Your task to perform on an android device: Clear the shopping cart on ebay. Search for "asus rog" on ebay, select the first entry, add it to the cart, then select checkout. Image 0: 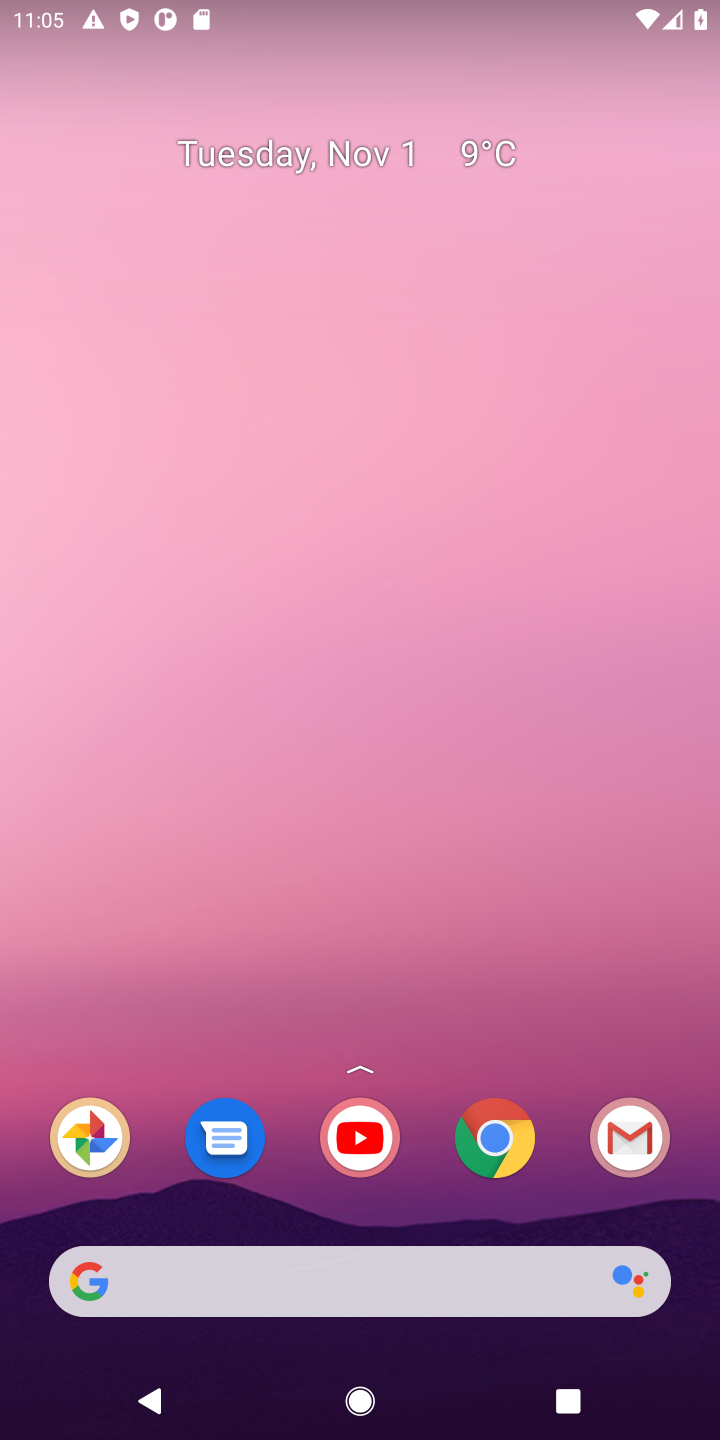
Step 0: click (359, 1272)
Your task to perform on an android device: Clear the shopping cart on ebay. Search for "asus rog" on ebay, select the first entry, add it to the cart, then select checkout. Image 1: 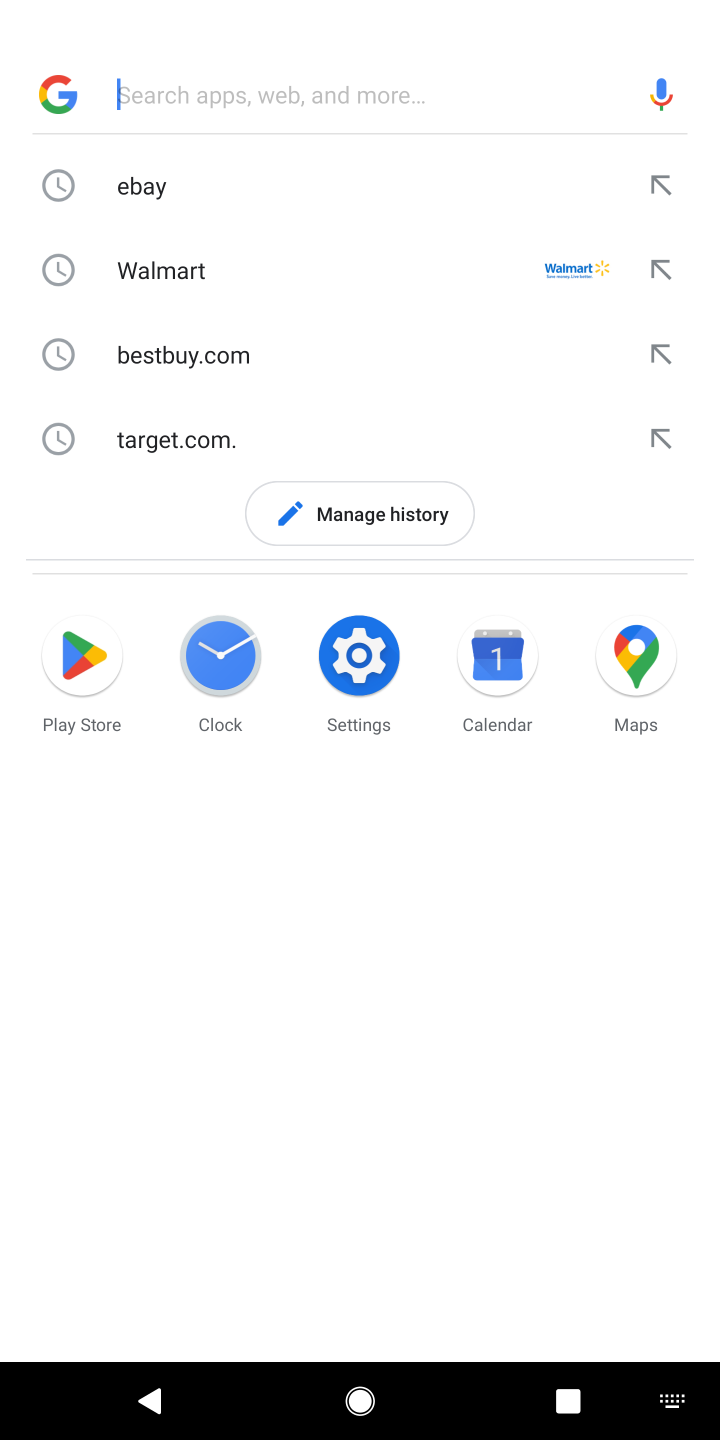
Step 1: type "ebay"
Your task to perform on an android device: Clear the shopping cart on ebay. Search for "asus rog" on ebay, select the first entry, add it to the cart, then select checkout. Image 2: 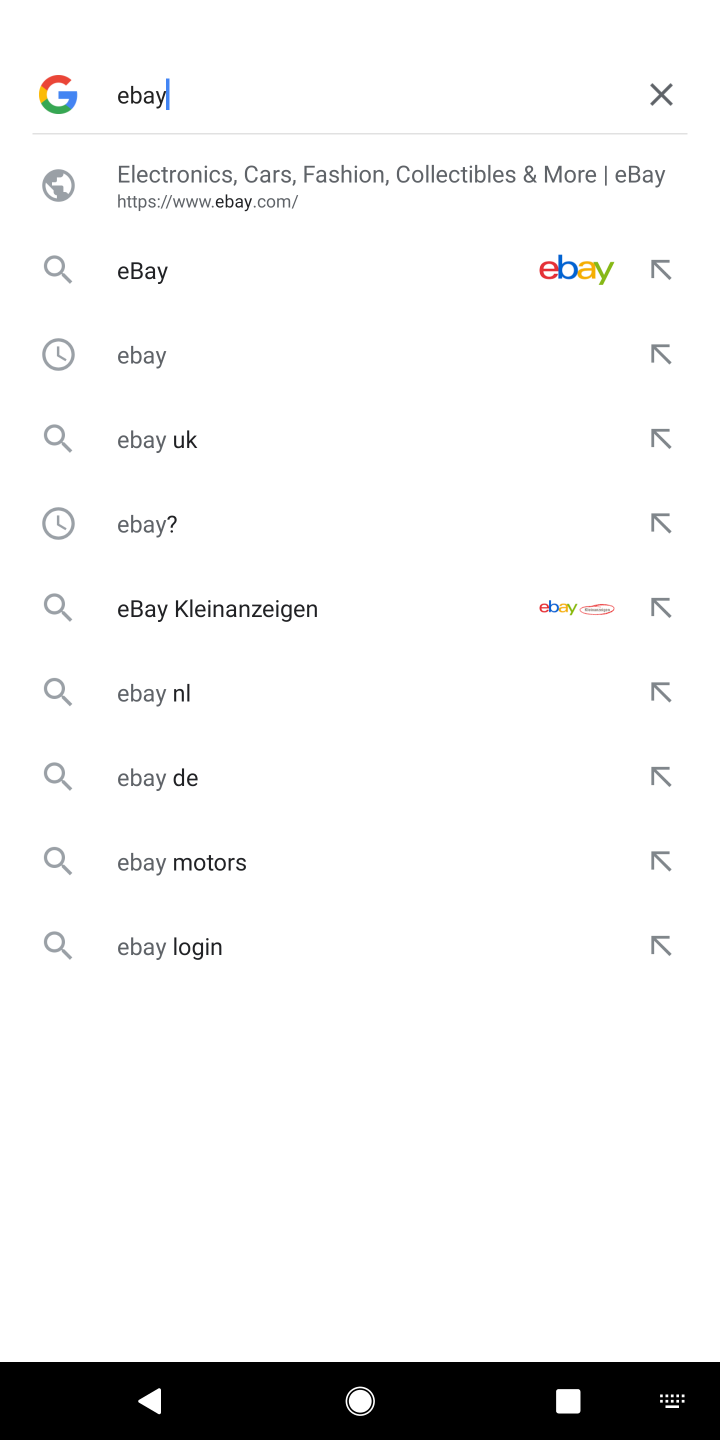
Step 2: click (202, 208)
Your task to perform on an android device: Clear the shopping cart on ebay. Search for "asus rog" on ebay, select the first entry, add it to the cart, then select checkout. Image 3: 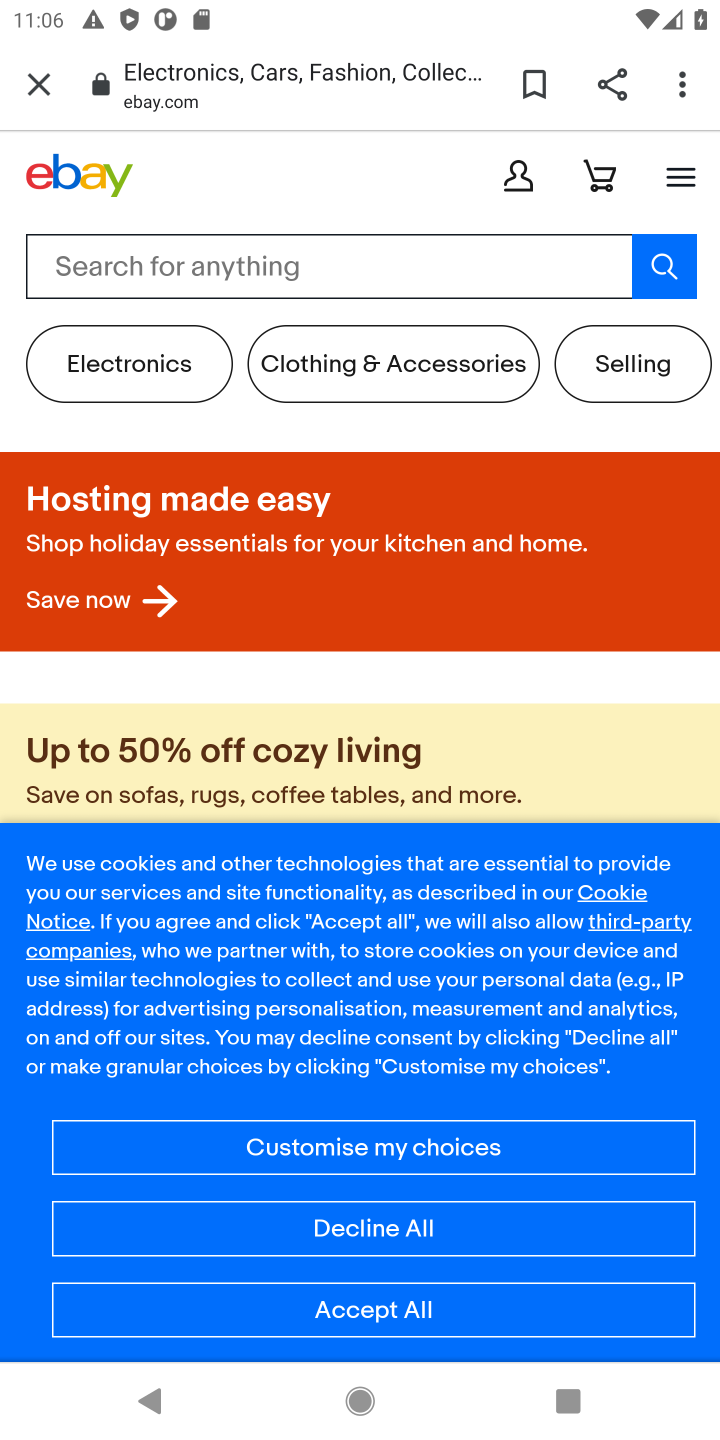
Step 3: click (302, 263)
Your task to perform on an android device: Clear the shopping cart on ebay. Search for "asus rog" on ebay, select the first entry, add it to the cart, then select checkout. Image 4: 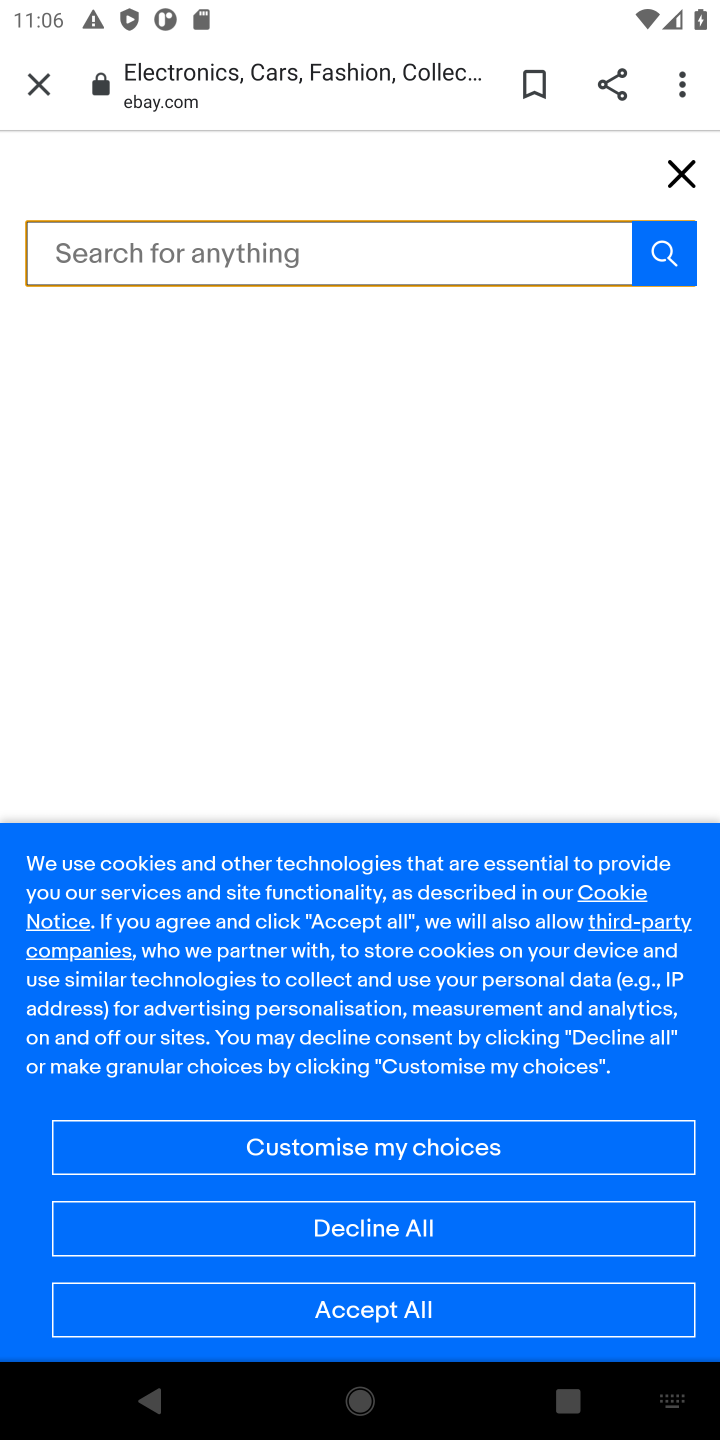
Step 4: type "asus rog"
Your task to perform on an android device: Clear the shopping cart on ebay. Search for "asus rog" on ebay, select the first entry, add it to the cart, then select checkout. Image 5: 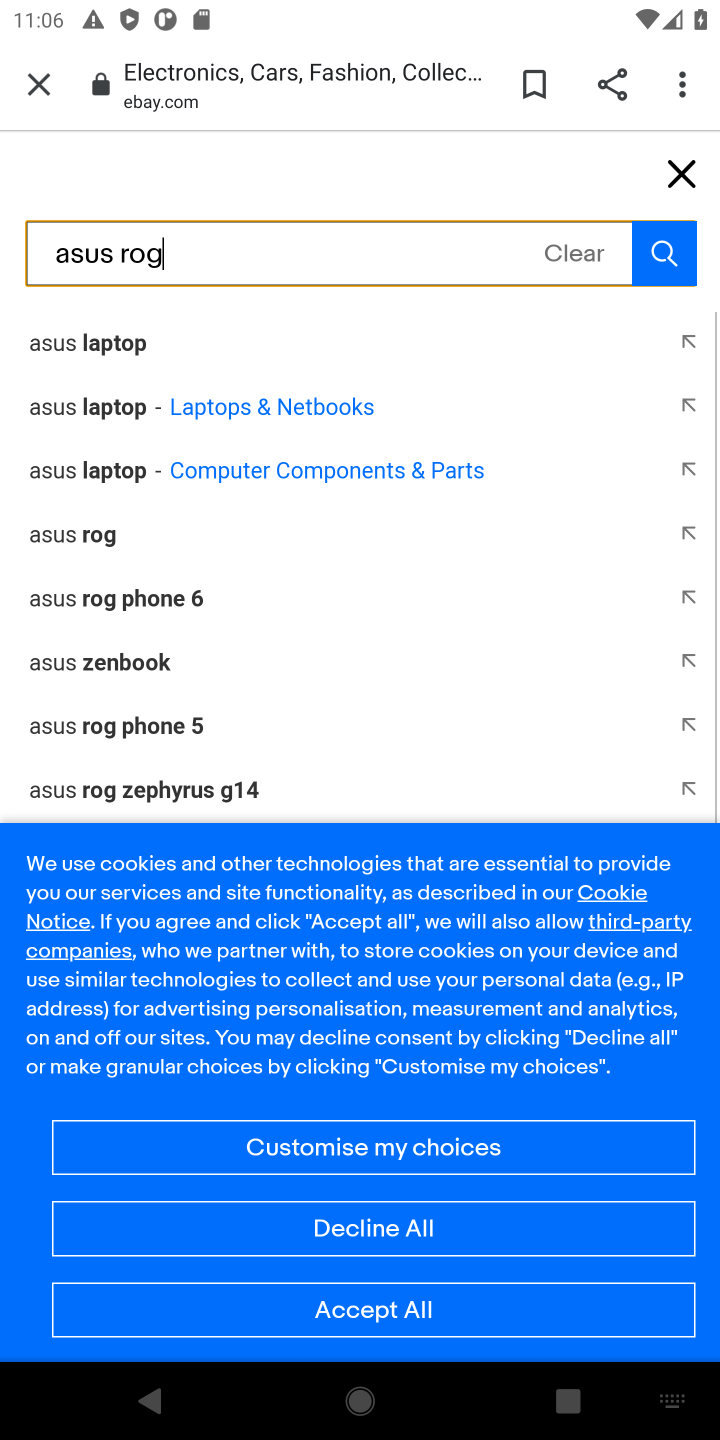
Step 5: type ""
Your task to perform on an android device: Clear the shopping cart on ebay. Search for "asus rog" on ebay, select the first entry, add it to the cart, then select checkout. Image 6: 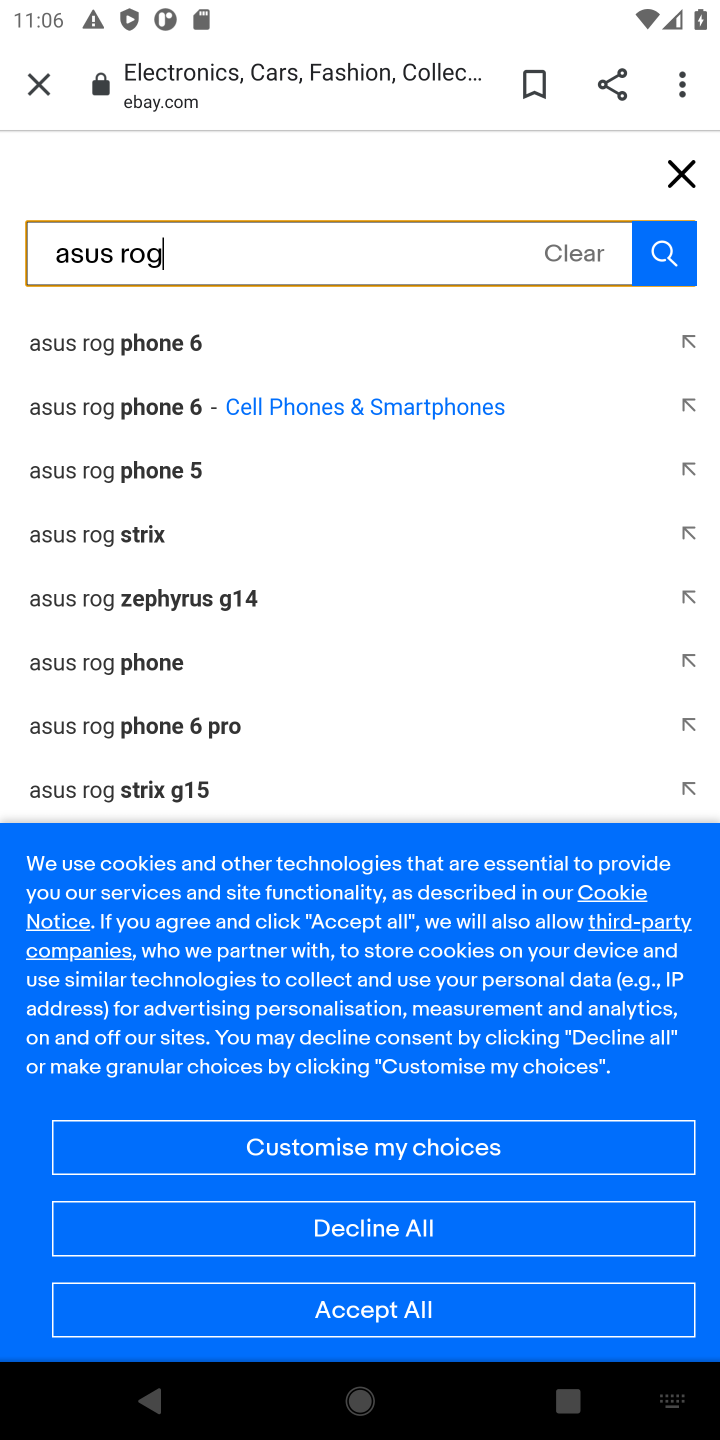
Step 6: click (654, 261)
Your task to perform on an android device: Clear the shopping cart on ebay. Search for "asus rog" on ebay, select the first entry, add it to the cart, then select checkout. Image 7: 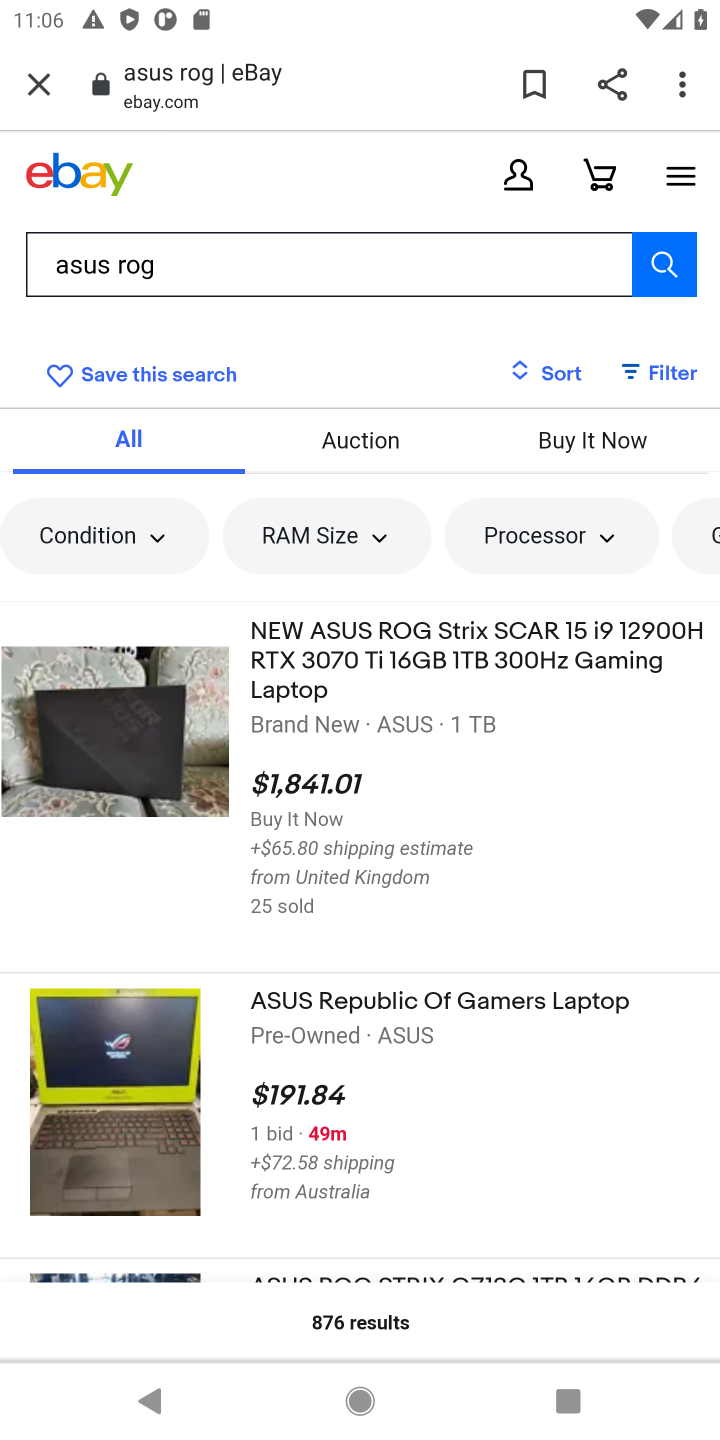
Step 7: click (484, 686)
Your task to perform on an android device: Clear the shopping cart on ebay. Search for "asus rog" on ebay, select the first entry, add it to the cart, then select checkout. Image 8: 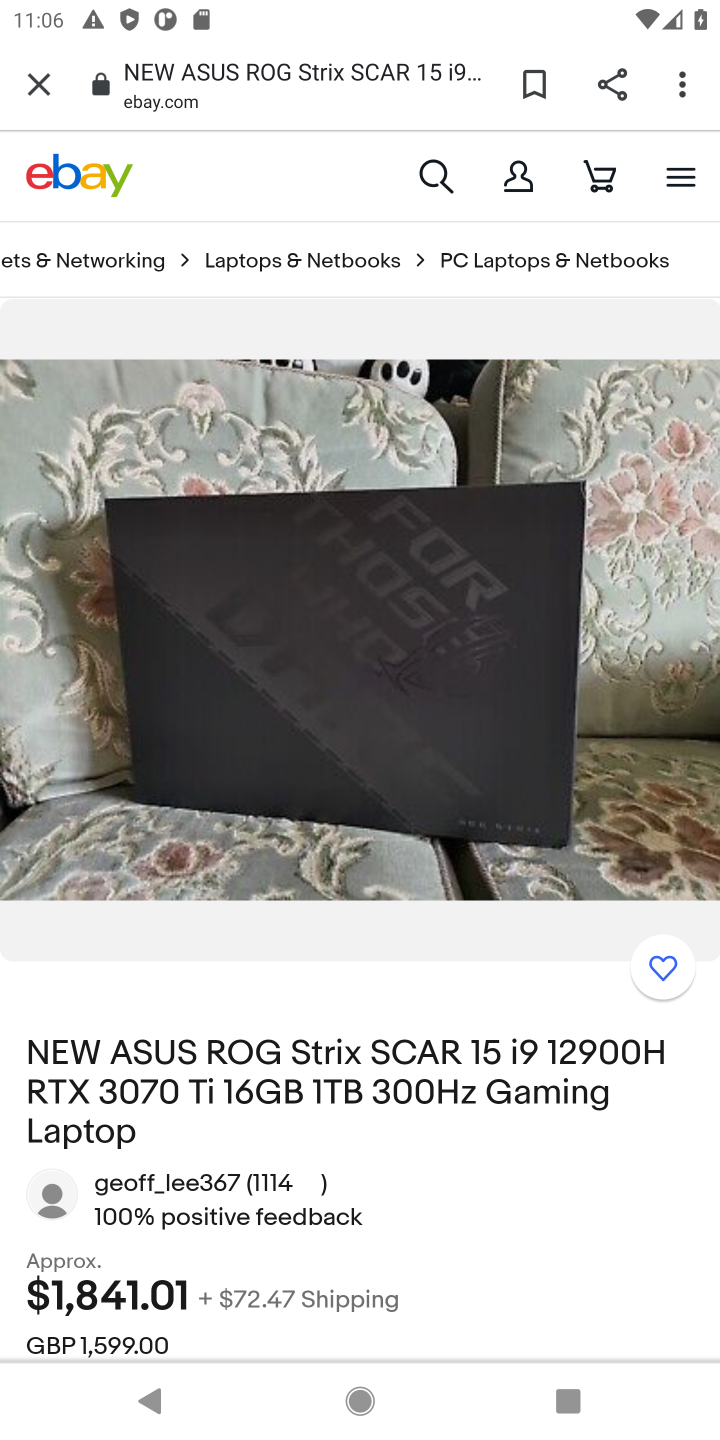
Step 8: drag from (418, 936) to (337, 504)
Your task to perform on an android device: Clear the shopping cart on ebay. Search for "asus rog" on ebay, select the first entry, add it to the cart, then select checkout. Image 9: 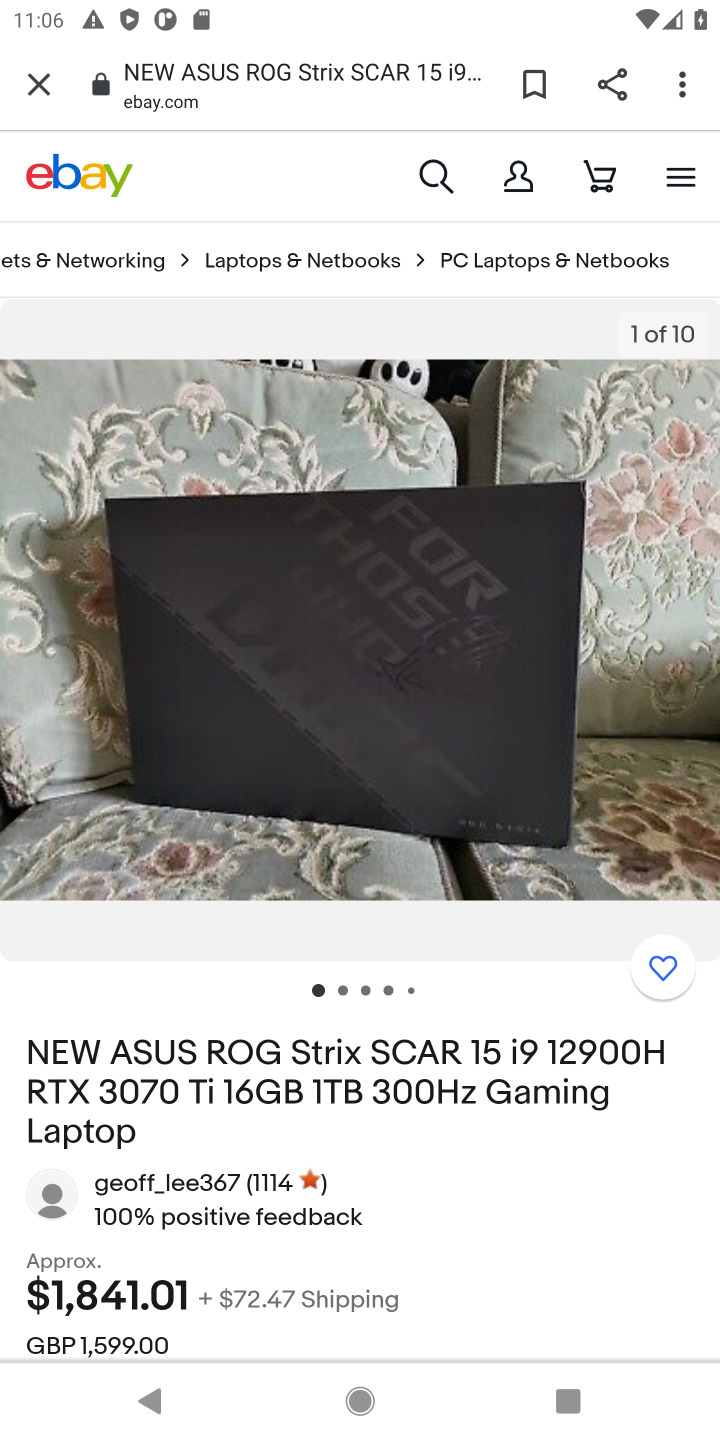
Step 9: drag from (493, 943) to (501, 633)
Your task to perform on an android device: Clear the shopping cart on ebay. Search for "asus rog" on ebay, select the first entry, add it to the cart, then select checkout. Image 10: 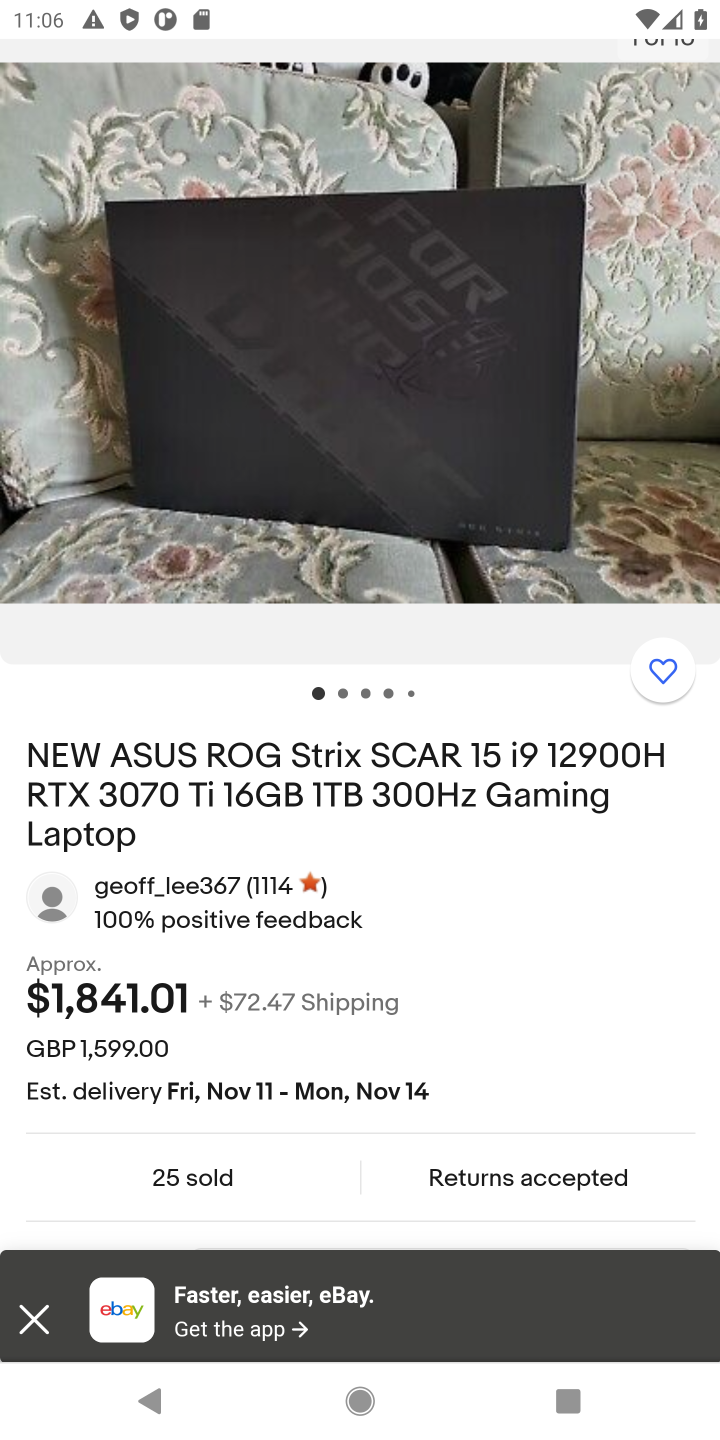
Step 10: drag from (404, 955) to (450, 531)
Your task to perform on an android device: Clear the shopping cart on ebay. Search for "asus rog" on ebay, select the first entry, add it to the cart, then select checkout. Image 11: 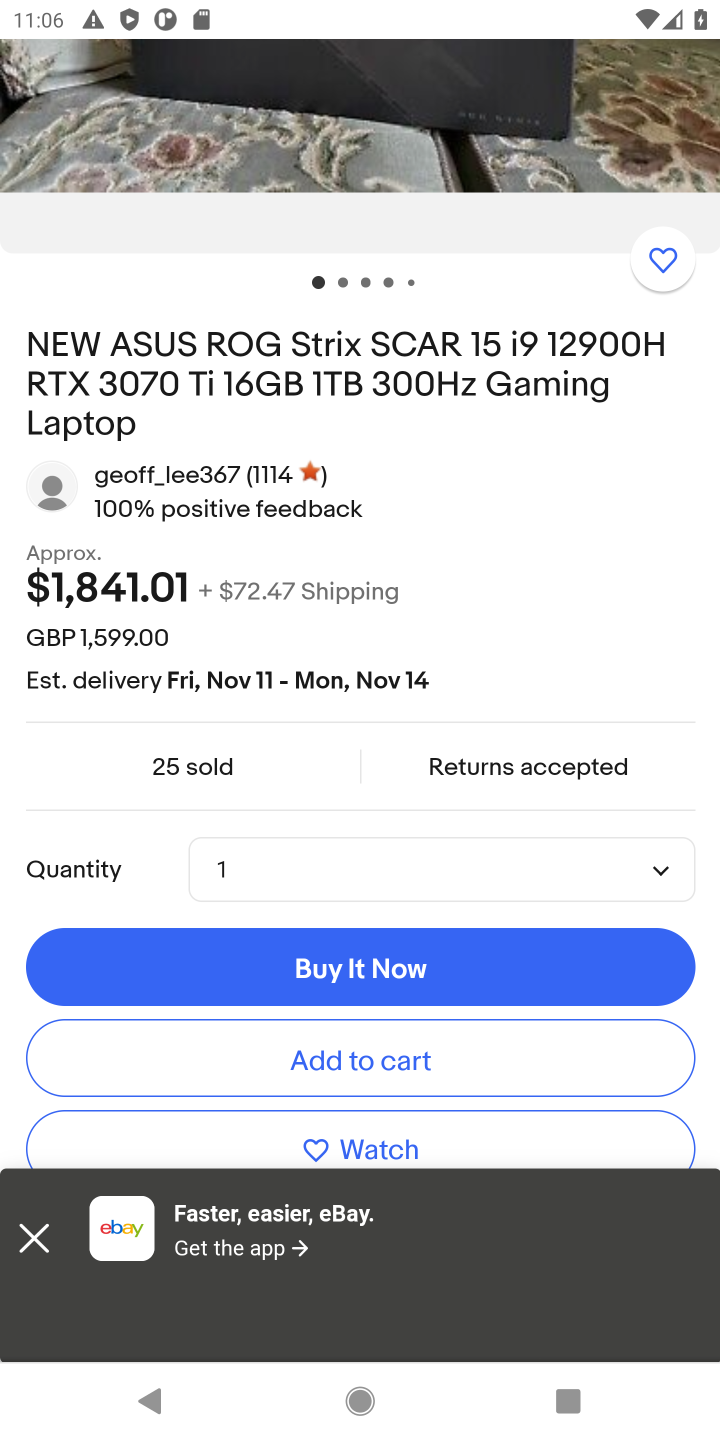
Step 11: click (382, 1057)
Your task to perform on an android device: Clear the shopping cart on ebay. Search for "asus rog" on ebay, select the first entry, add it to the cart, then select checkout. Image 12: 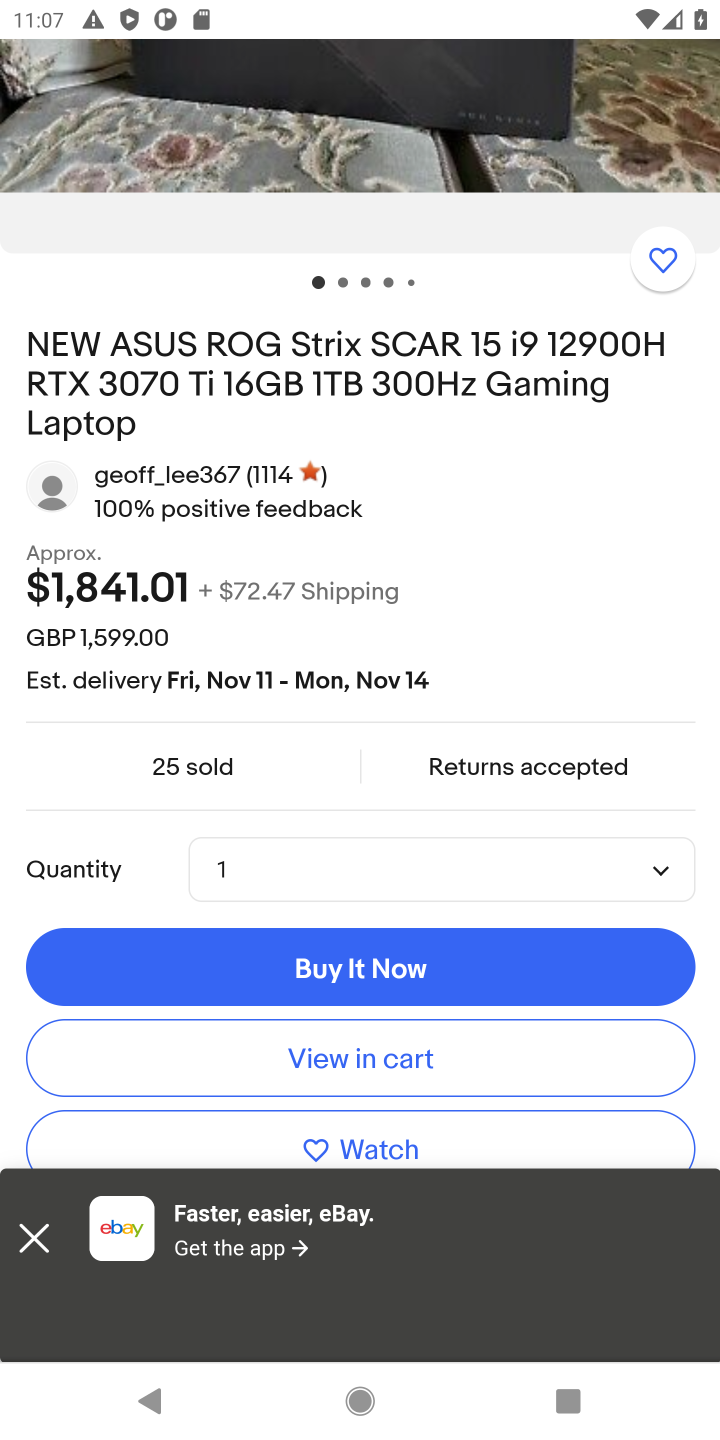
Step 12: drag from (535, 516) to (524, 1149)
Your task to perform on an android device: Clear the shopping cart on ebay. Search for "asus rog" on ebay, select the first entry, add it to the cart, then select checkout. Image 13: 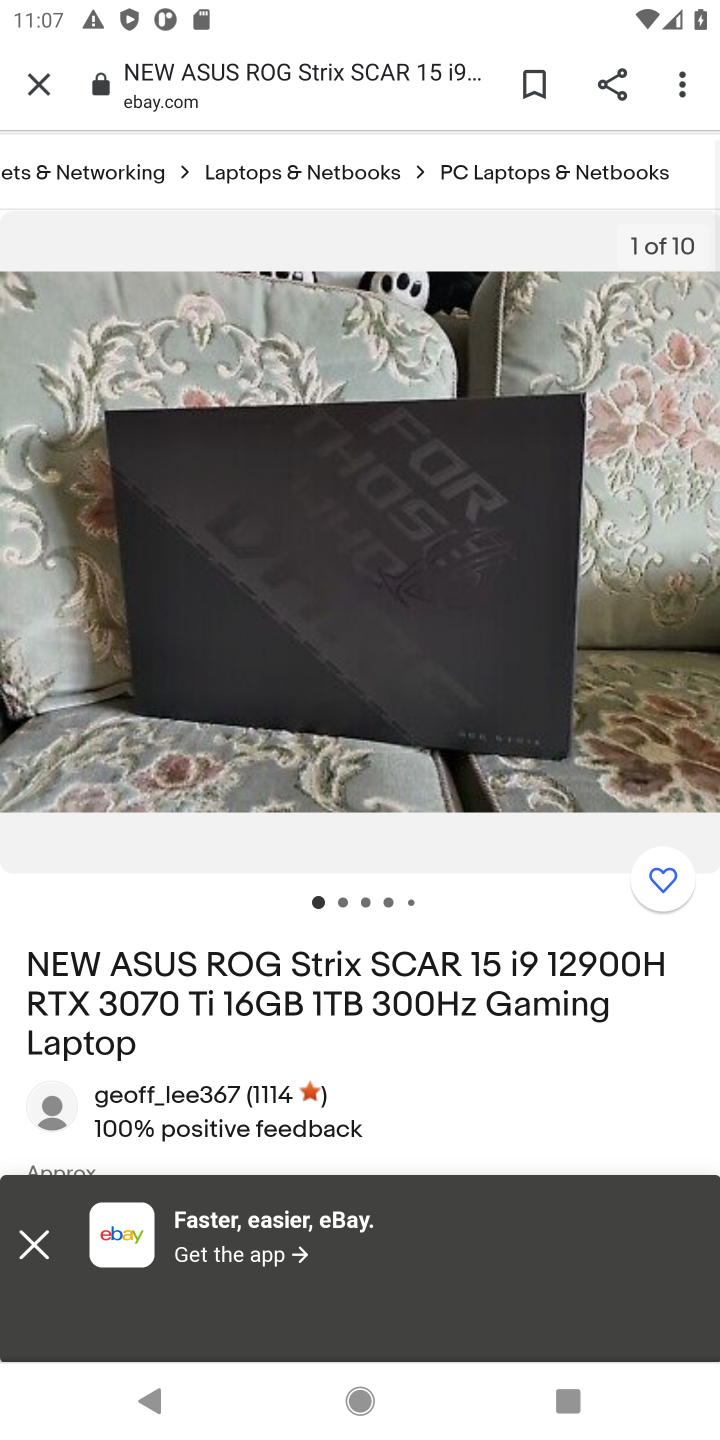
Step 13: drag from (576, 622) to (561, 997)
Your task to perform on an android device: Clear the shopping cart on ebay. Search for "asus rog" on ebay, select the first entry, add it to the cart, then select checkout. Image 14: 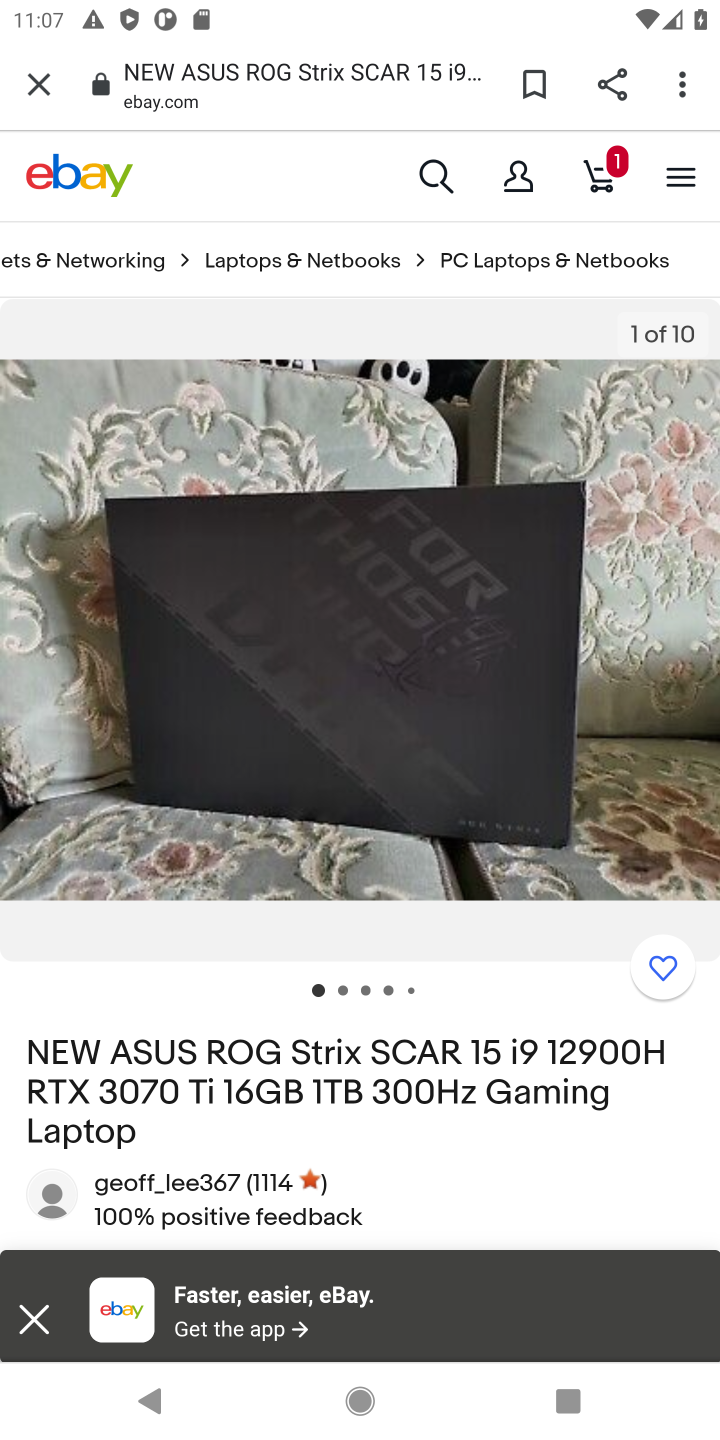
Step 14: click (614, 175)
Your task to perform on an android device: Clear the shopping cart on ebay. Search for "asus rog" on ebay, select the first entry, add it to the cart, then select checkout. Image 15: 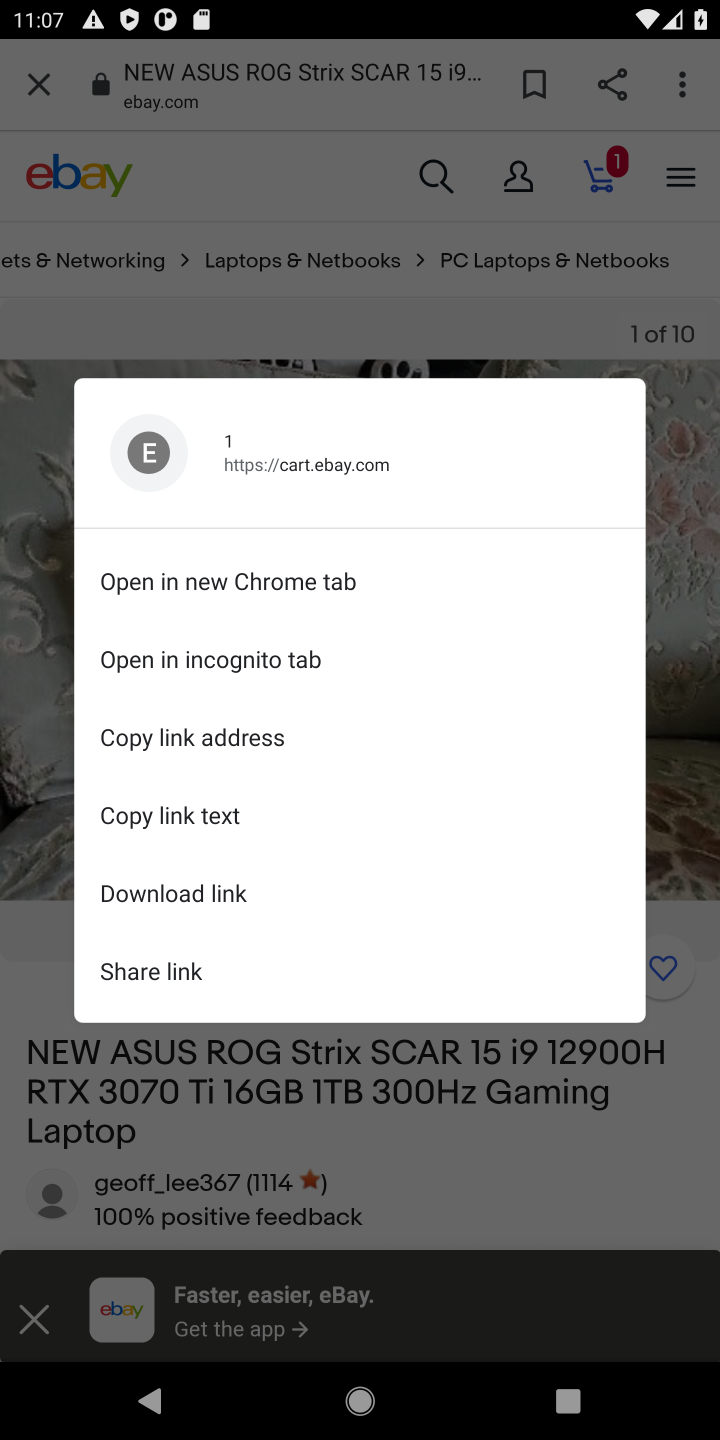
Step 15: click (590, 185)
Your task to perform on an android device: Clear the shopping cart on ebay. Search for "asus rog" on ebay, select the first entry, add it to the cart, then select checkout. Image 16: 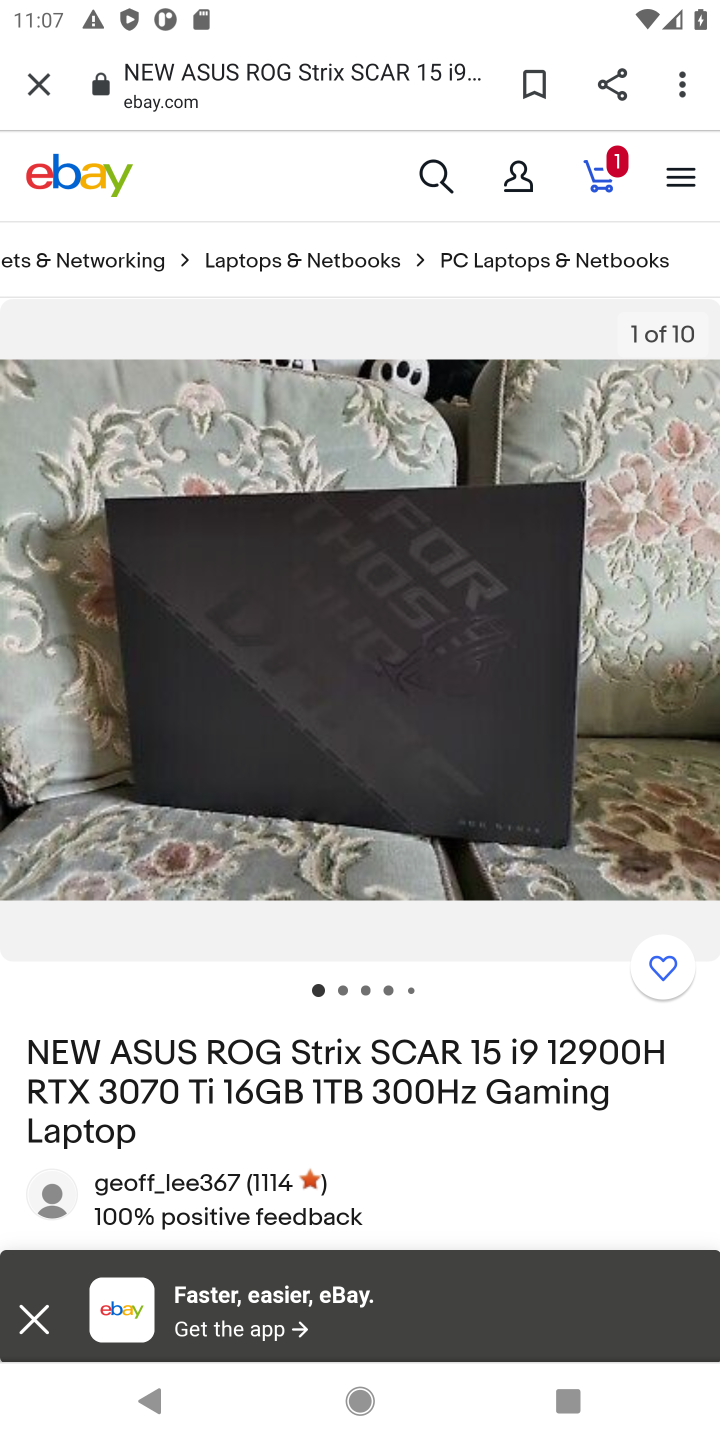
Step 16: click (590, 185)
Your task to perform on an android device: Clear the shopping cart on ebay. Search for "asus rog" on ebay, select the first entry, add it to the cart, then select checkout. Image 17: 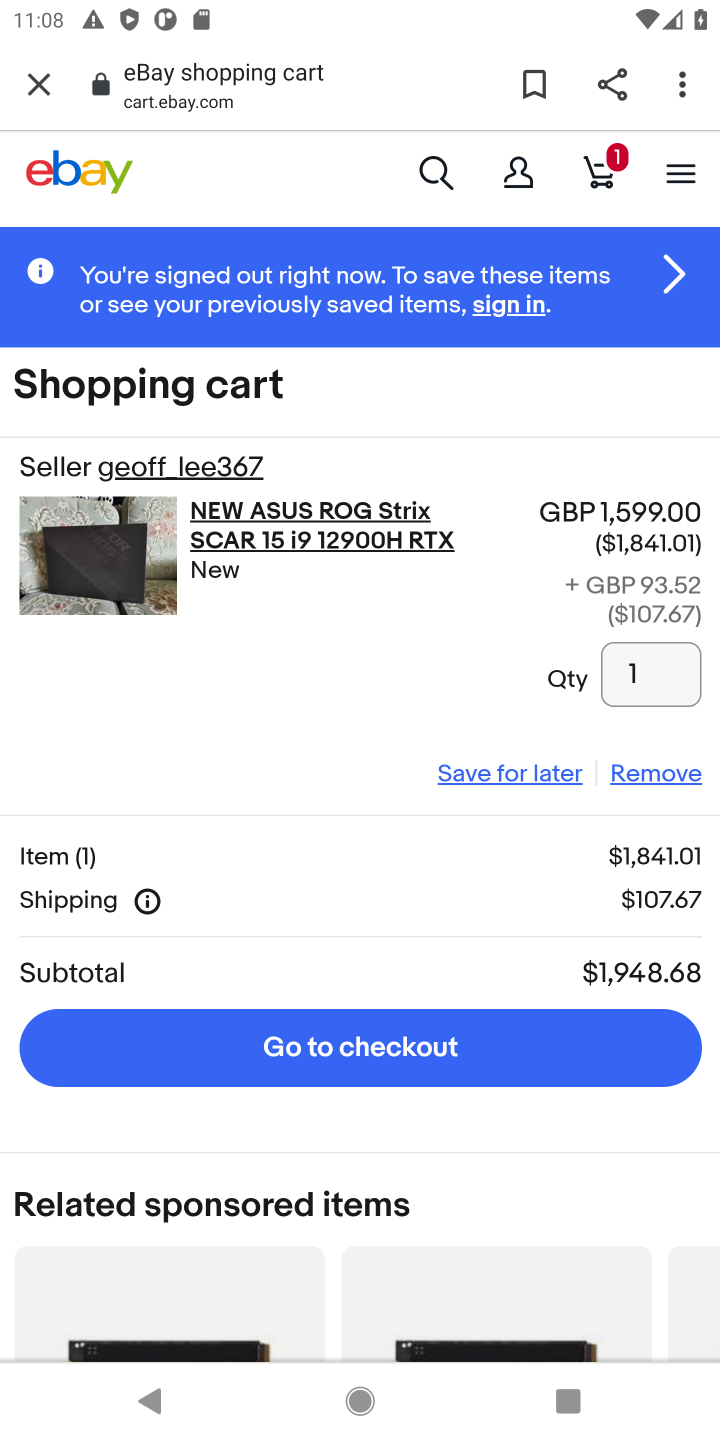
Step 17: click (487, 1033)
Your task to perform on an android device: Clear the shopping cart on ebay. Search for "asus rog" on ebay, select the first entry, add it to the cart, then select checkout. Image 18: 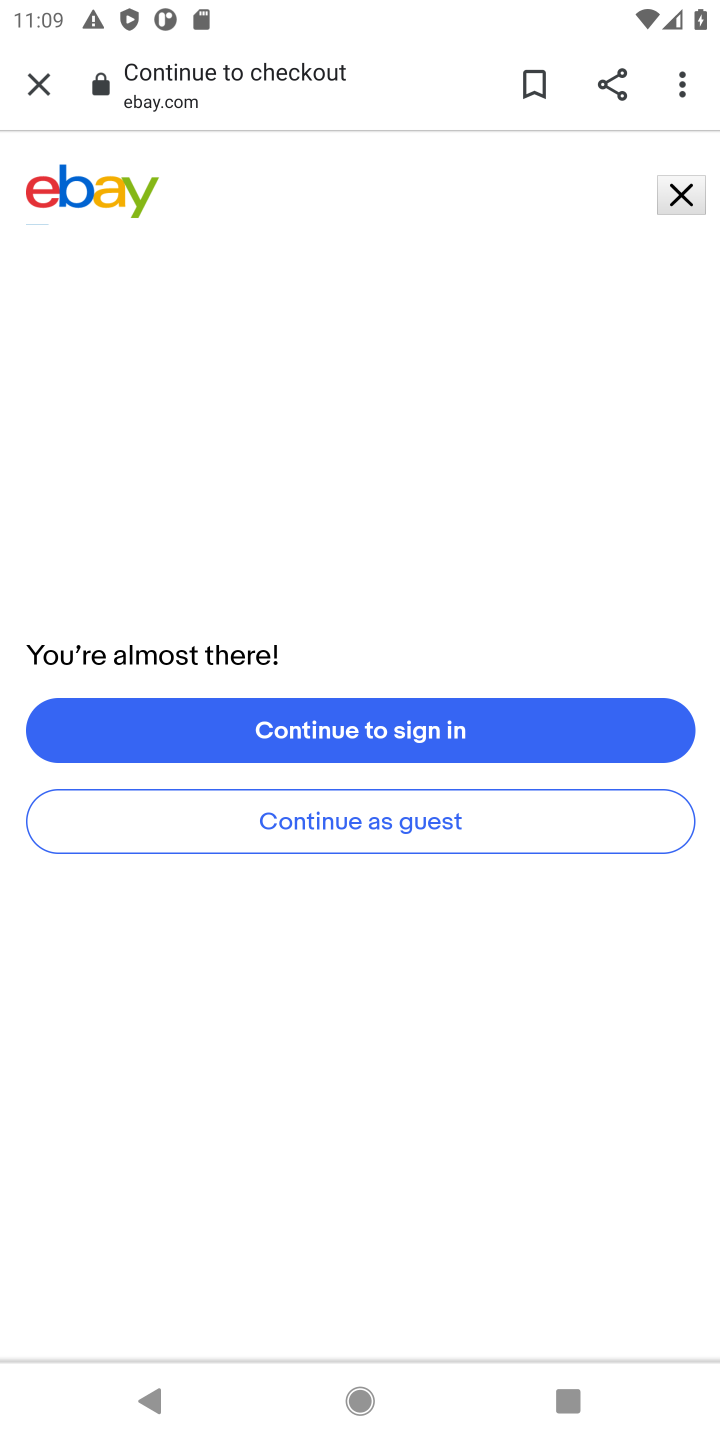
Step 18: click (689, 197)
Your task to perform on an android device: Clear the shopping cart on ebay. Search for "asus rog" on ebay, select the first entry, add it to the cart, then select checkout. Image 19: 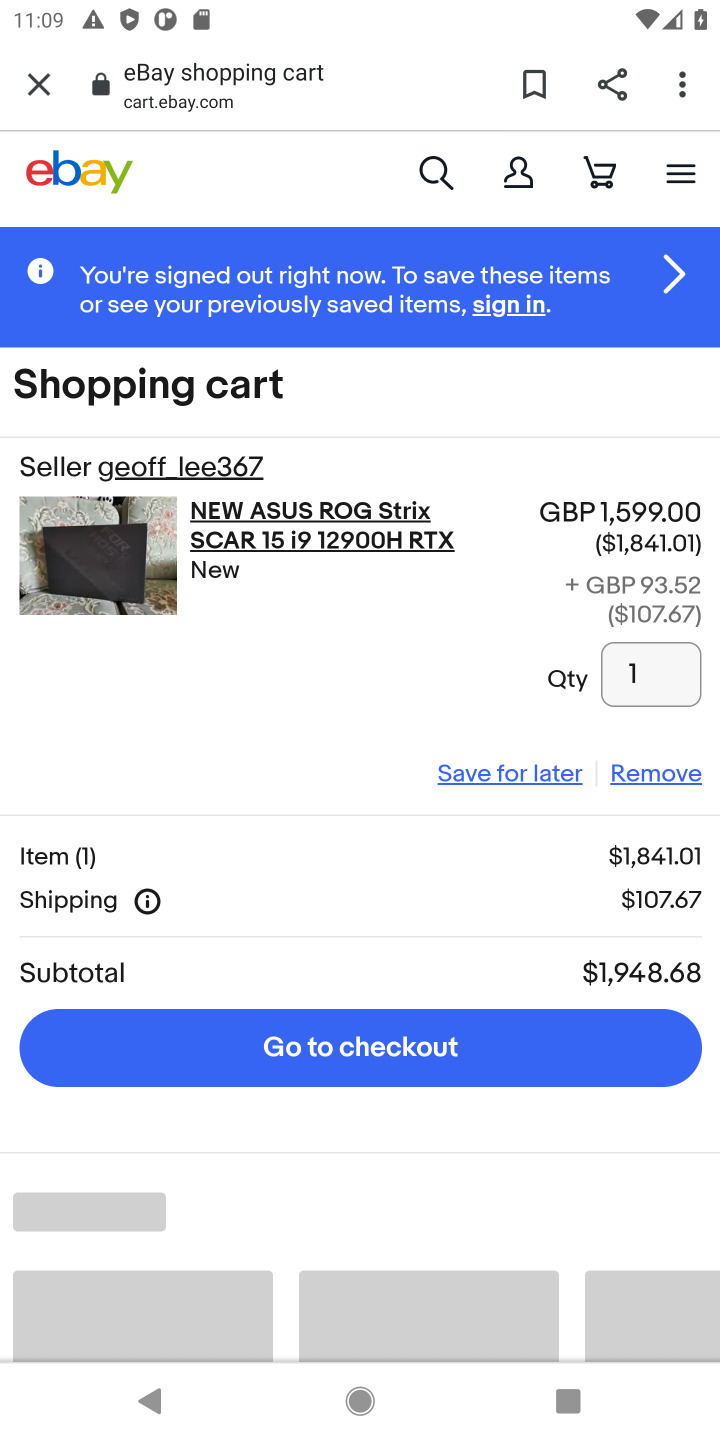
Step 19: click (511, 1039)
Your task to perform on an android device: Clear the shopping cart on ebay. Search for "asus rog" on ebay, select the first entry, add it to the cart, then select checkout. Image 20: 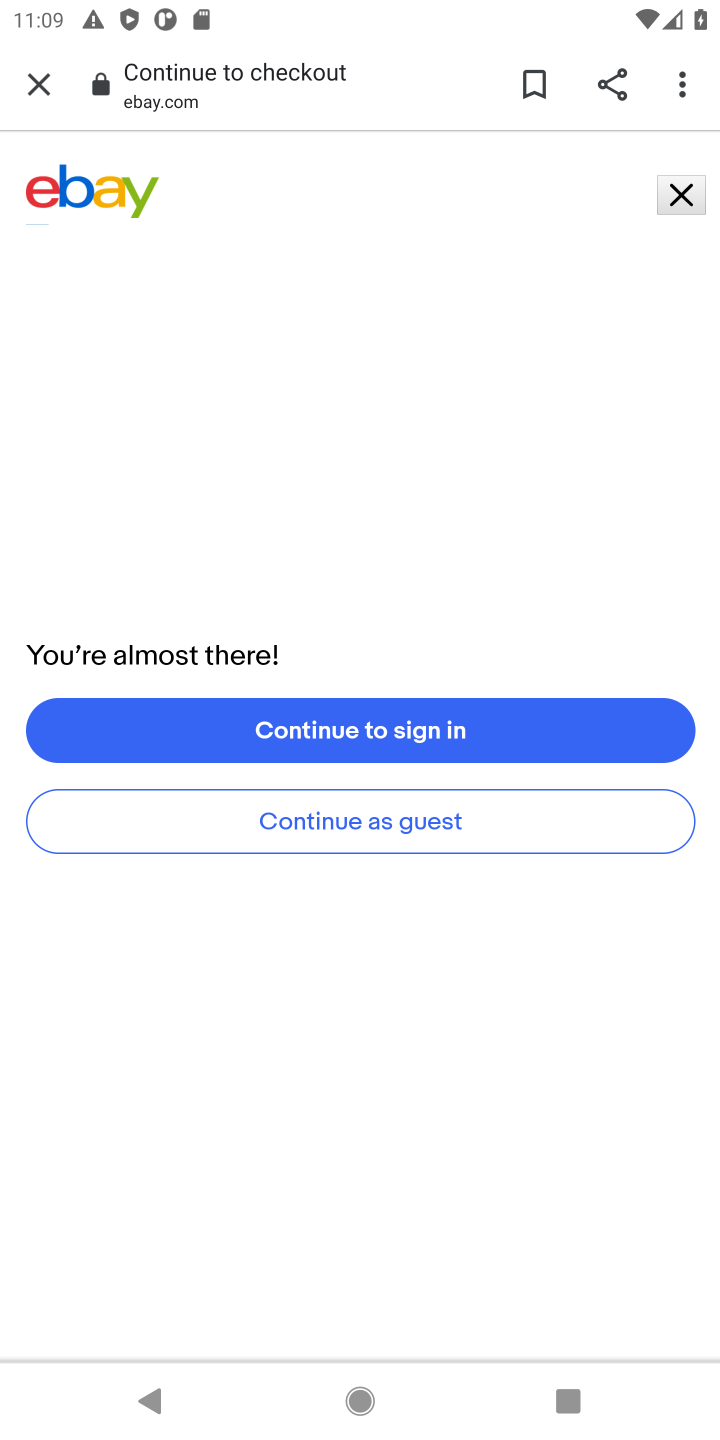
Step 20: task complete